Your task to perform on an android device: Open Chrome and go to the settings page Image 0: 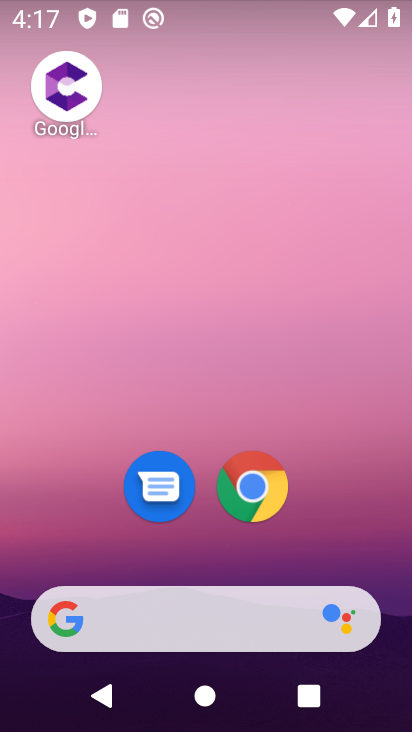
Step 0: click (256, 497)
Your task to perform on an android device: Open Chrome and go to the settings page Image 1: 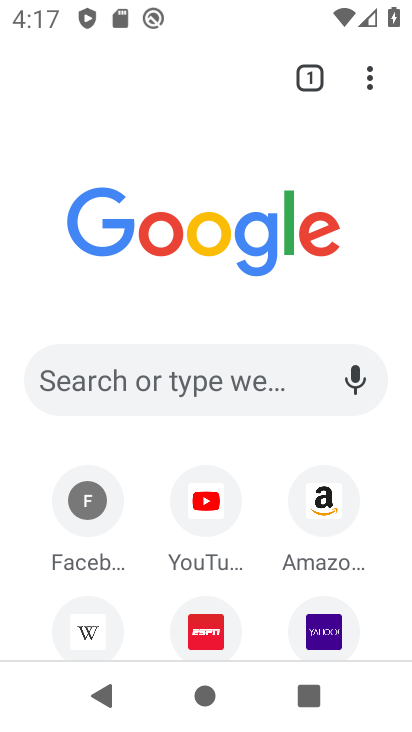
Step 1: click (372, 74)
Your task to perform on an android device: Open Chrome and go to the settings page Image 2: 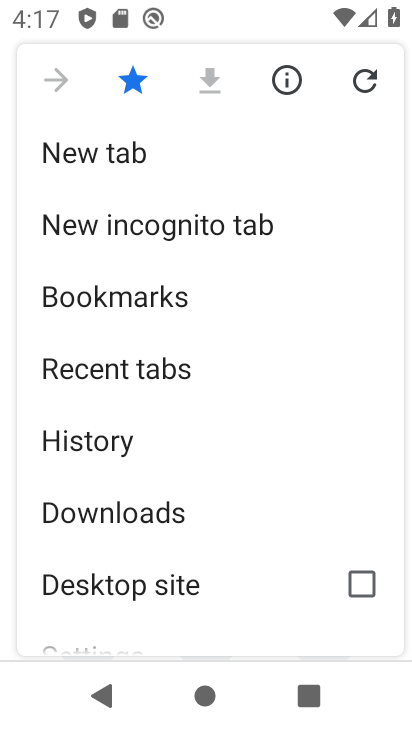
Step 2: drag from (166, 429) to (167, 186)
Your task to perform on an android device: Open Chrome and go to the settings page Image 3: 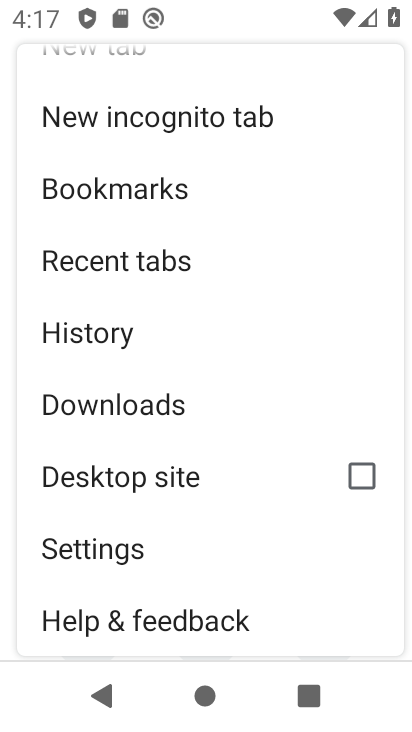
Step 3: click (146, 549)
Your task to perform on an android device: Open Chrome and go to the settings page Image 4: 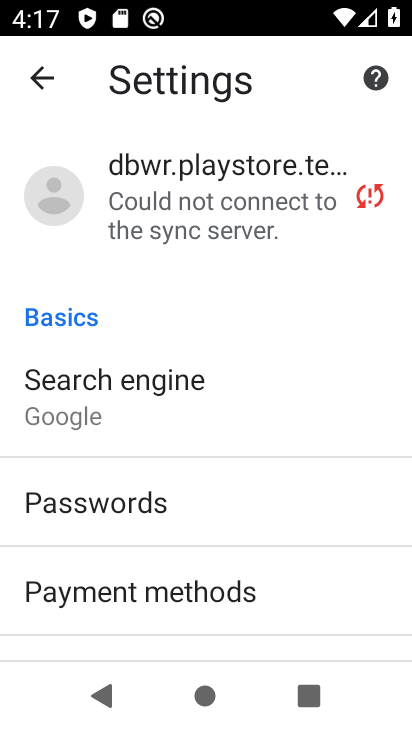
Step 4: task complete